Your task to perform on an android device: check the backup settings in the google photos Image 0: 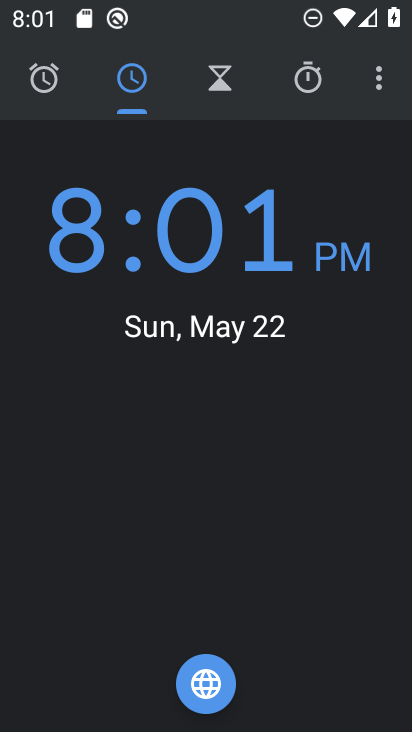
Step 0: press home button
Your task to perform on an android device: check the backup settings in the google photos Image 1: 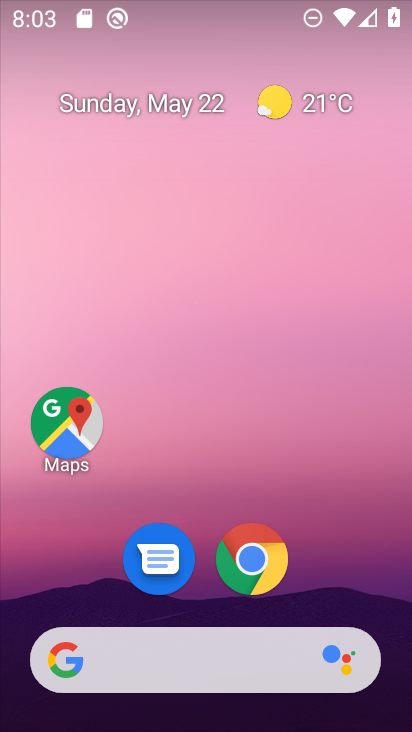
Step 1: drag from (231, 706) to (254, 213)
Your task to perform on an android device: check the backup settings in the google photos Image 2: 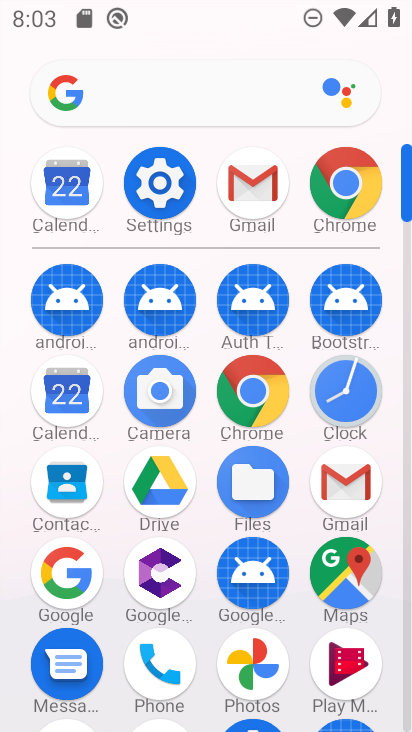
Step 2: click (250, 645)
Your task to perform on an android device: check the backup settings in the google photos Image 3: 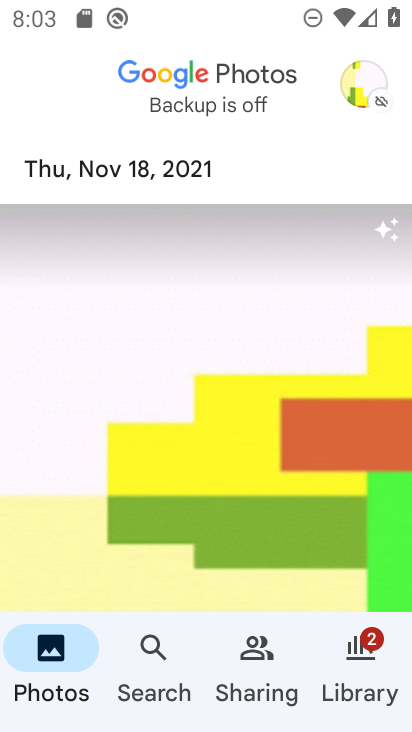
Step 3: click (379, 76)
Your task to perform on an android device: check the backup settings in the google photos Image 4: 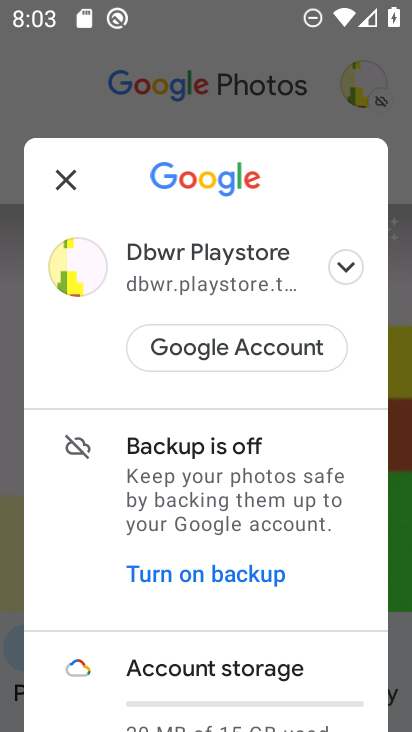
Step 4: click (195, 571)
Your task to perform on an android device: check the backup settings in the google photos Image 5: 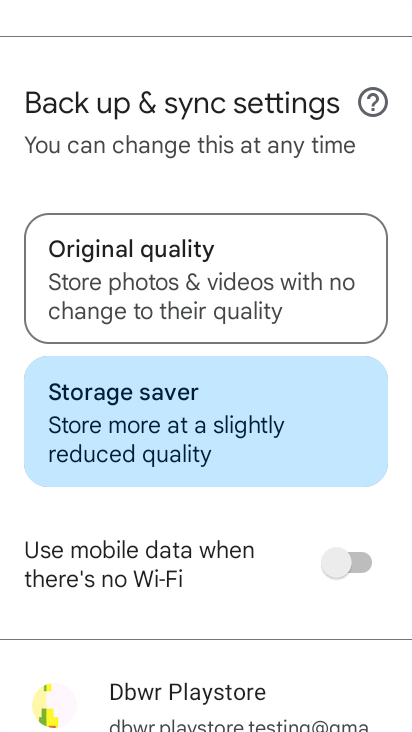
Step 5: drag from (282, 640) to (219, 307)
Your task to perform on an android device: check the backup settings in the google photos Image 6: 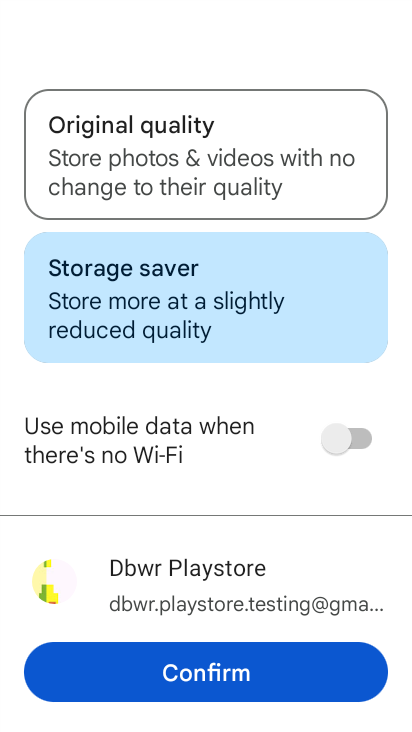
Step 6: click (269, 678)
Your task to perform on an android device: check the backup settings in the google photos Image 7: 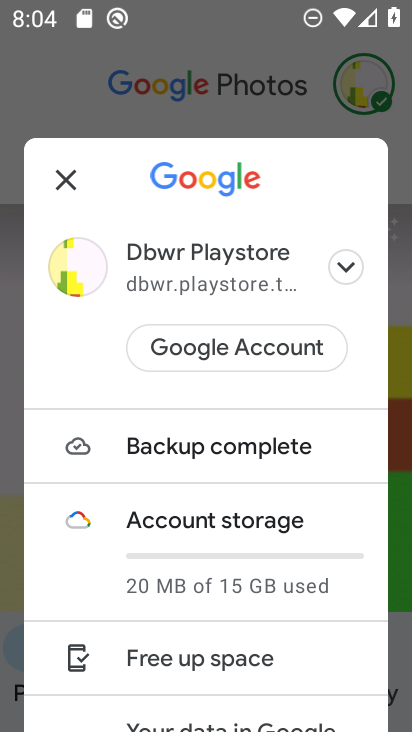
Step 7: task complete